Your task to perform on an android device: Open location settings Image 0: 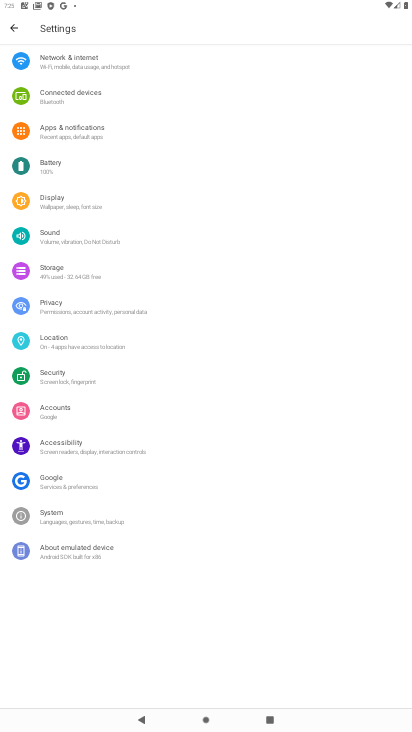
Step 0: click (59, 345)
Your task to perform on an android device: Open location settings Image 1: 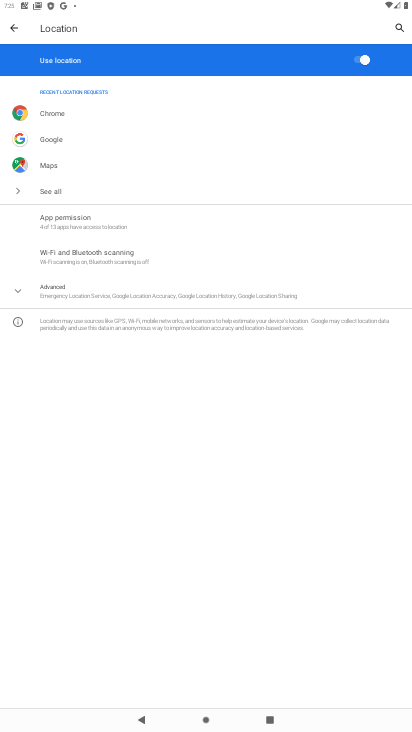
Step 1: task complete